Your task to perform on an android device: Open calendar and show me the first week of next month Image 0: 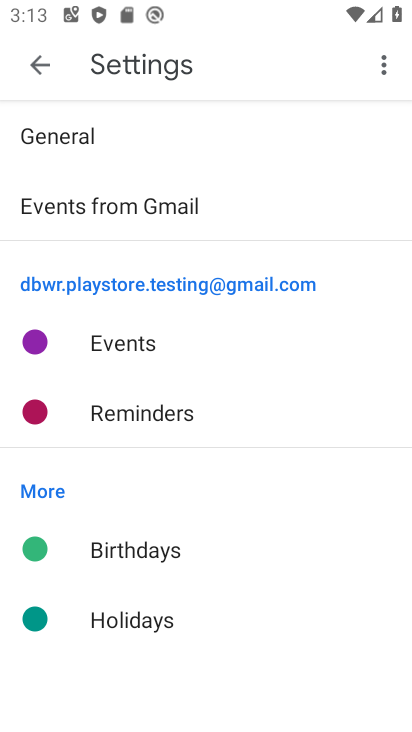
Step 0: press home button
Your task to perform on an android device: Open calendar and show me the first week of next month Image 1: 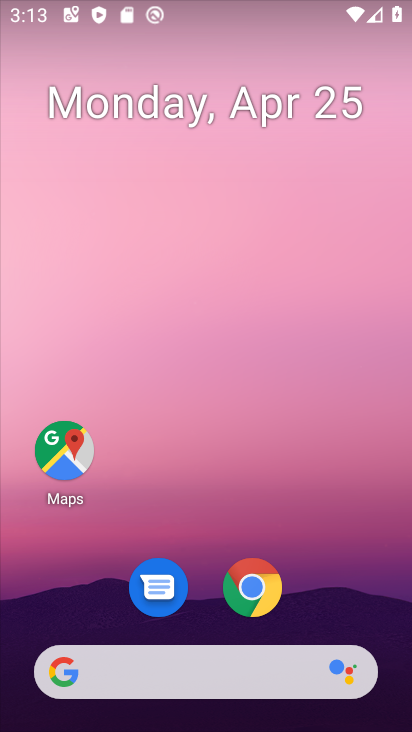
Step 1: drag from (206, 609) to (270, 171)
Your task to perform on an android device: Open calendar and show me the first week of next month Image 2: 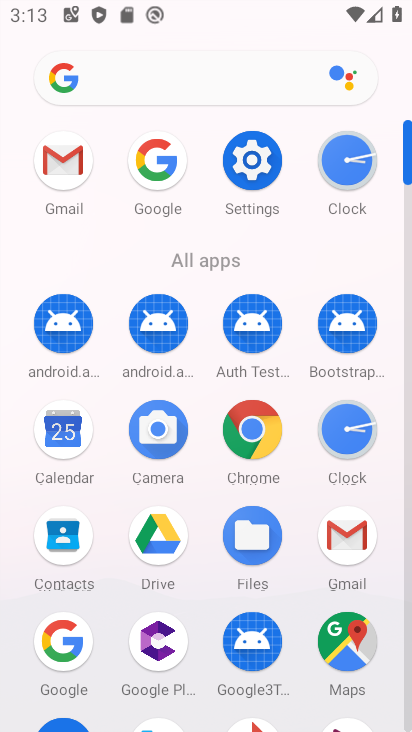
Step 2: click (71, 427)
Your task to perform on an android device: Open calendar and show me the first week of next month Image 3: 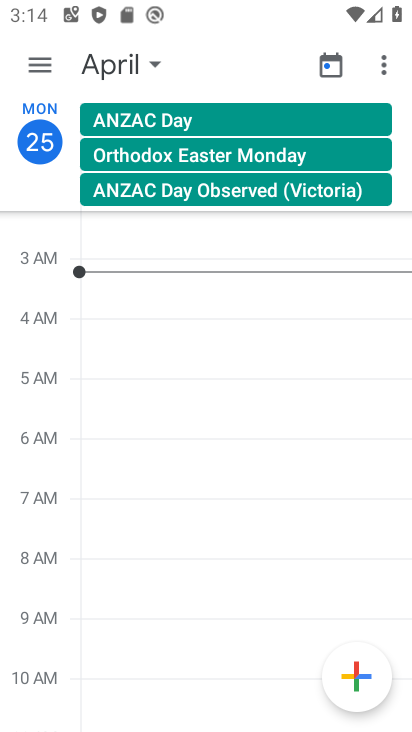
Step 3: click (139, 71)
Your task to perform on an android device: Open calendar and show me the first week of next month Image 4: 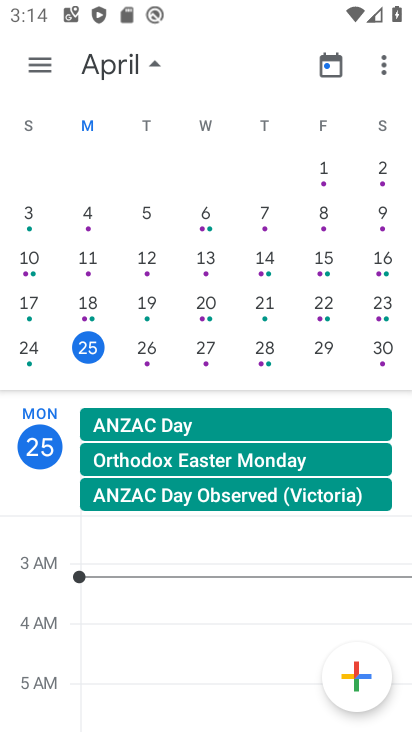
Step 4: drag from (366, 374) to (16, 355)
Your task to perform on an android device: Open calendar and show me the first week of next month Image 5: 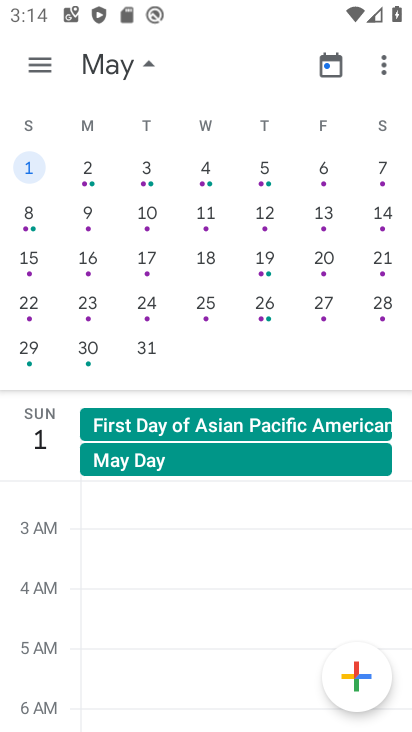
Step 5: click (143, 165)
Your task to perform on an android device: Open calendar and show me the first week of next month Image 6: 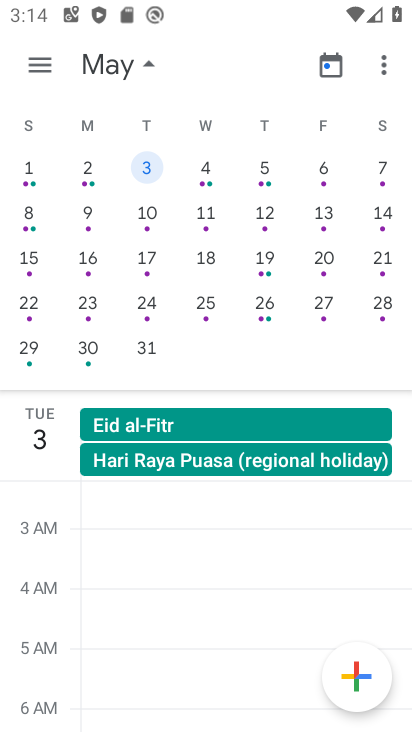
Step 6: task complete